Your task to perform on an android device: show emergency info Image 0: 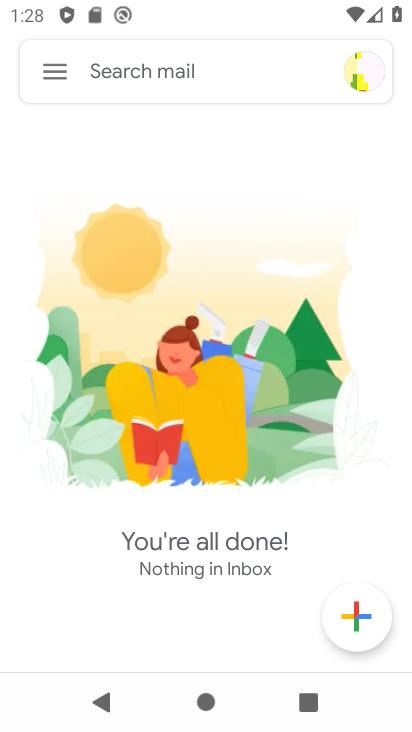
Step 0: press home button
Your task to perform on an android device: show emergency info Image 1: 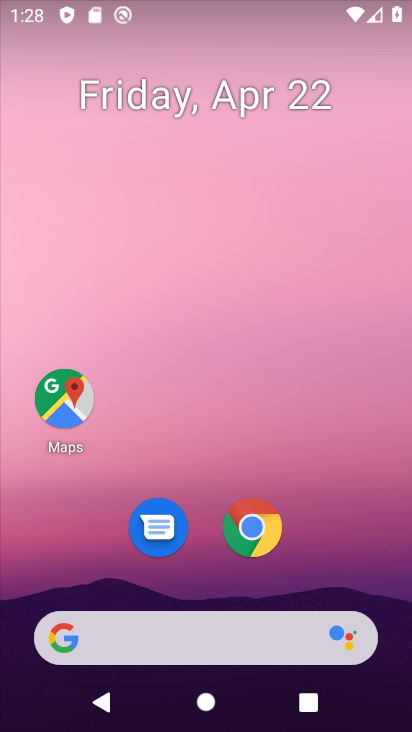
Step 1: drag from (322, 495) to (290, 56)
Your task to perform on an android device: show emergency info Image 2: 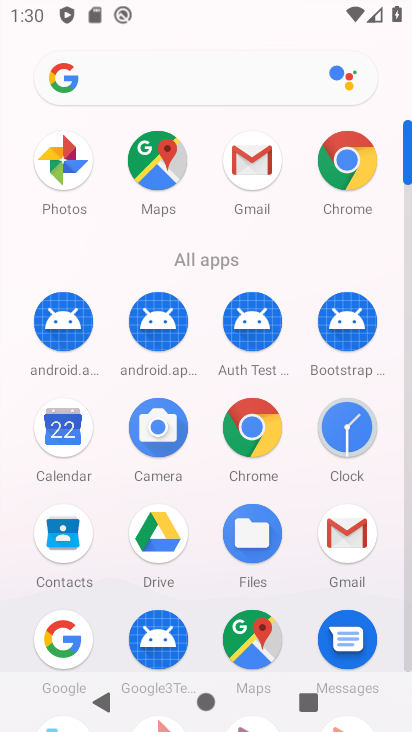
Step 2: click (407, 664)
Your task to perform on an android device: show emergency info Image 3: 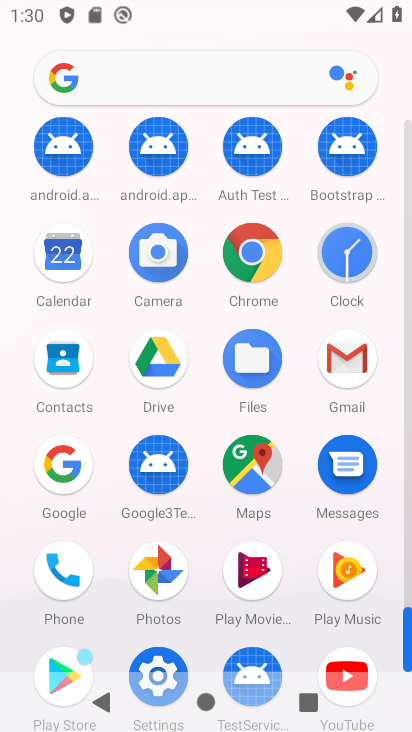
Step 3: click (161, 654)
Your task to perform on an android device: show emergency info Image 4: 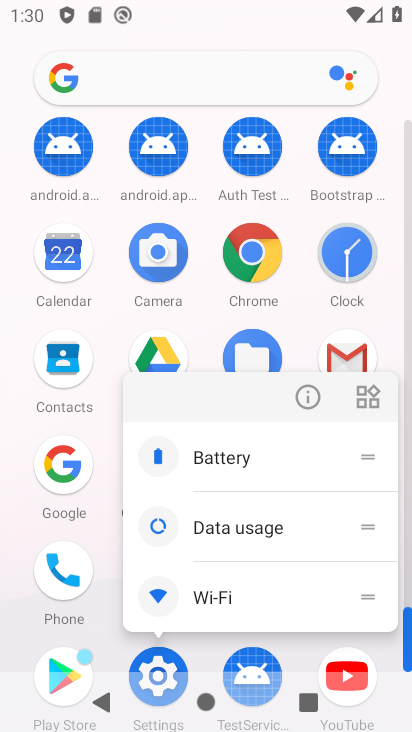
Step 4: click (161, 654)
Your task to perform on an android device: show emergency info Image 5: 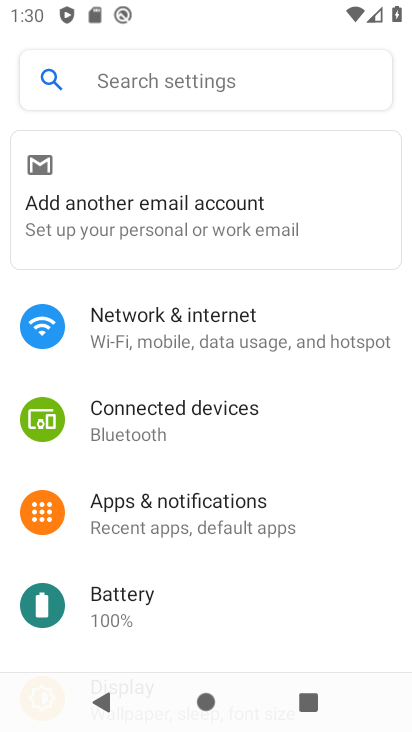
Step 5: drag from (212, 556) to (222, 234)
Your task to perform on an android device: show emergency info Image 6: 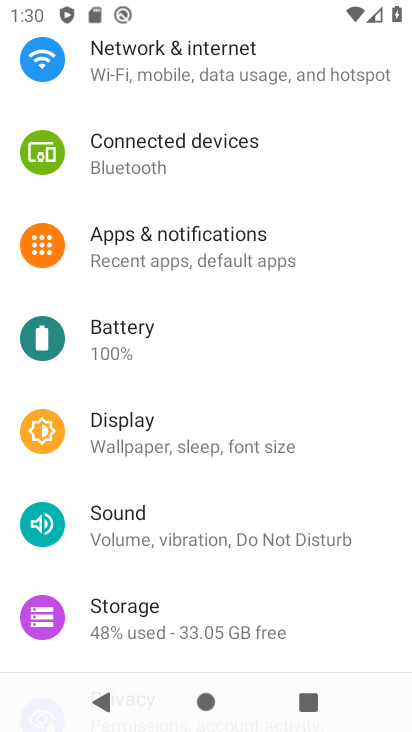
Step 6: drag from (201, 545) to (228, 96)
Your task to perform on an android device: show emergency info Image 7: 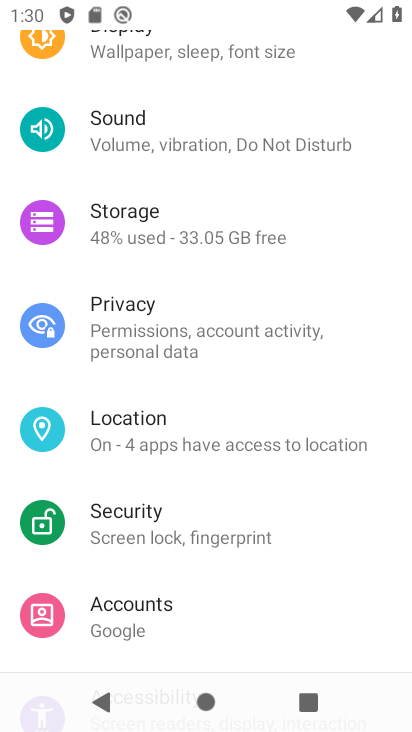
Step 7: drag from (181, 560) to (248, 106)
Your task to perform on an android device: show emergency info Image 8: 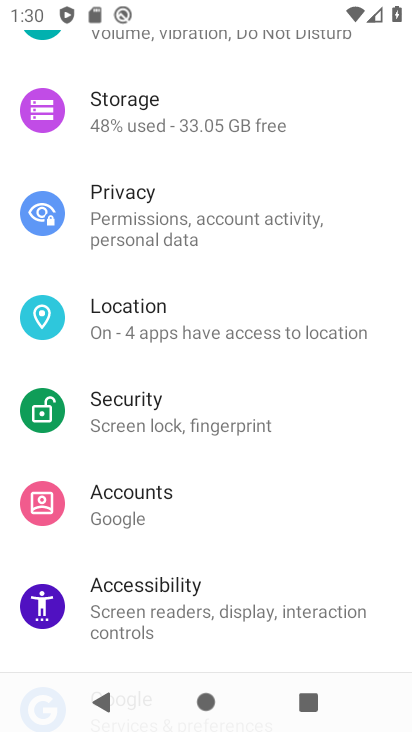
Step 8: drag from (178, 585) to (244, 152)
Your task to perform on an android device: show emergency info Image 9: 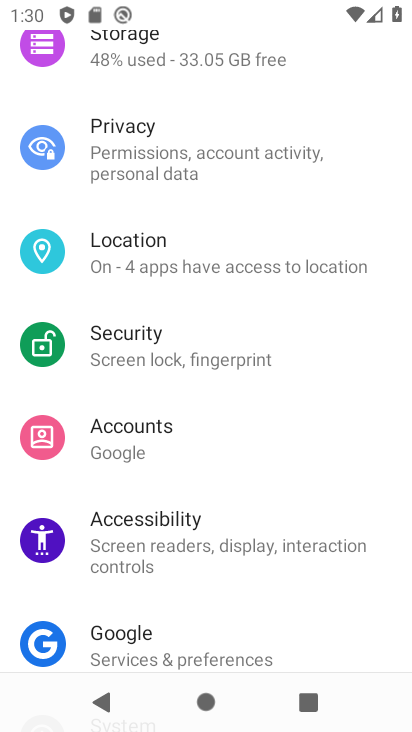
Step 9: drag from (212, 639) to (239, 72)
Your task to perform on an android device: show emergency info Image 10: 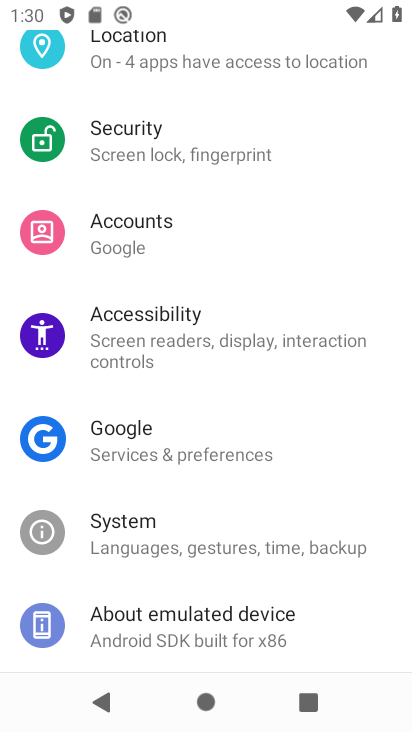
Step 10: click (199, 628)
Your task to perform on an android device: show emergency info Image 11: 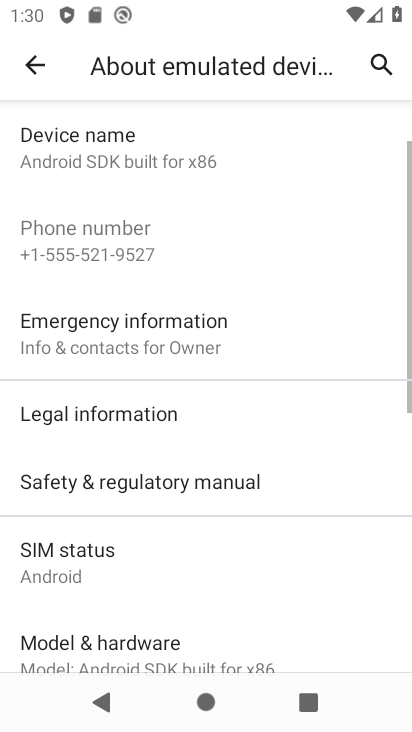
Step 11: click (241, 316)
Your task to perform on an android device: show emergency info Image 12: 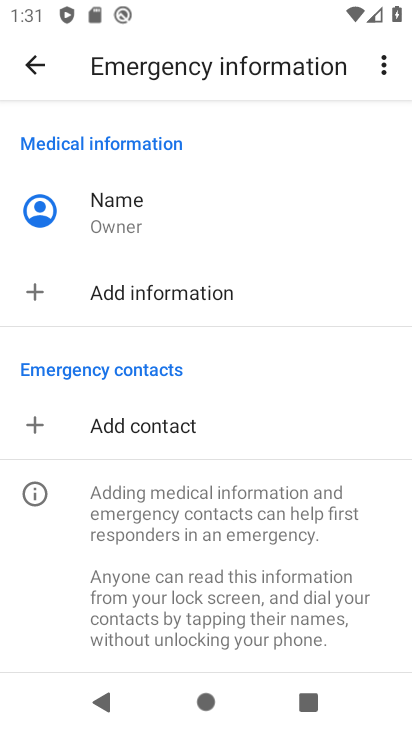
Step 12: task complete